Your task to perform on an android device: change the clock display to show seconds Image 0: 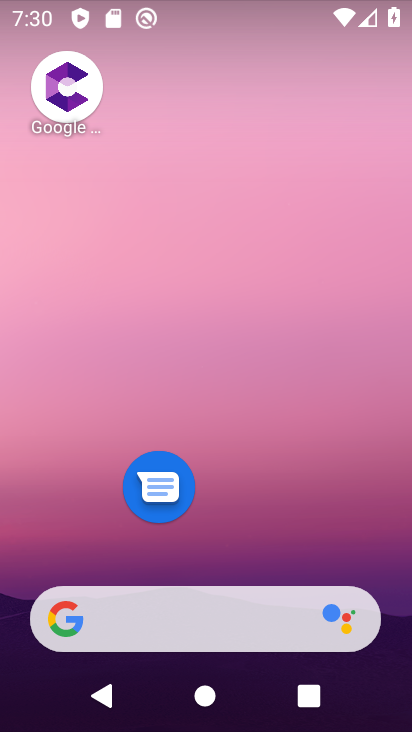
Step 0: drag from (230, 505) to (364, 23)
Your task to perform on an android device: change the clock display to show seconds Image 1: 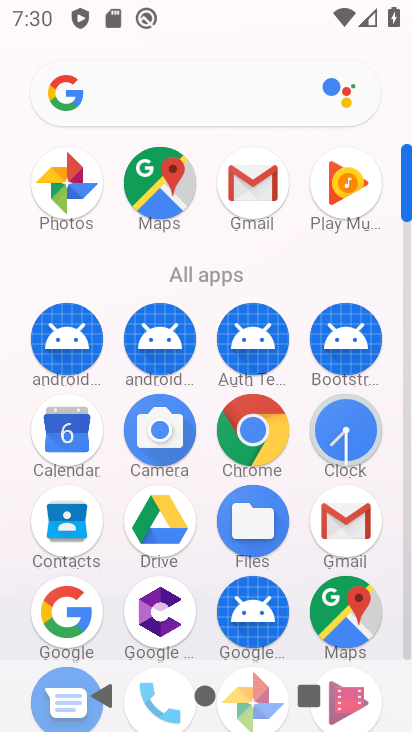
Step 1: click (333, 433)
Your task to perform on an android device: change the clock display to show seconds Image 2: 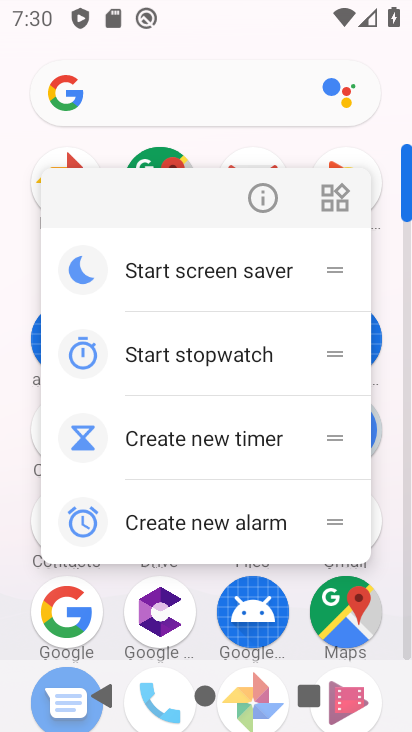
Step 2: click (251, 202)
Your task to perform on an android device: change the clock display to show seconds Image 3: 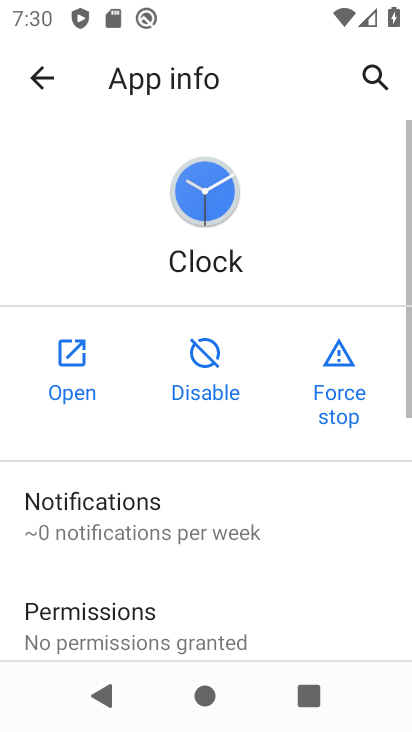
Step 3: click (71, 371)
Your task to perform on an android device: change the clock display to show seconds Image 4: 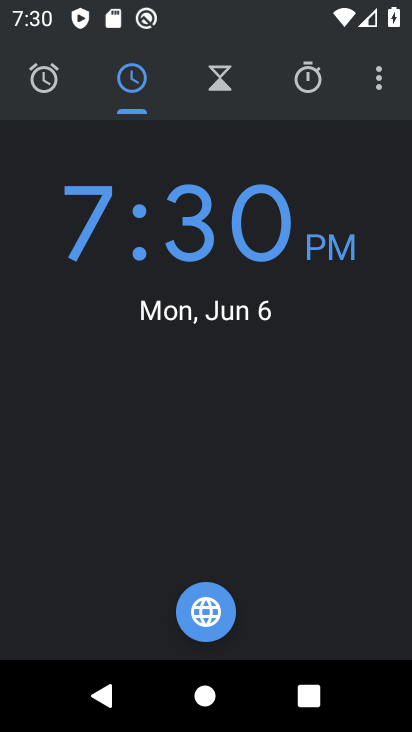
Step 4: drag from (191, 463) to (263, 197)
Your task to perform on an android device: change the clock display to show seconds Image 5: 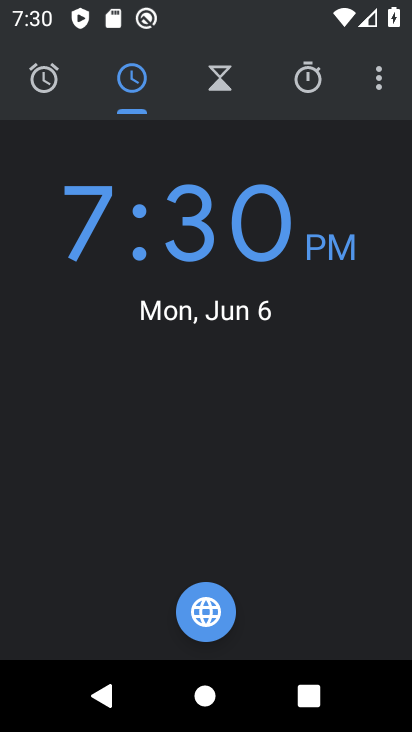
Step 5: click (397, 70)
Your task to perform on an android device: change the clock display to show seconds Image 6: 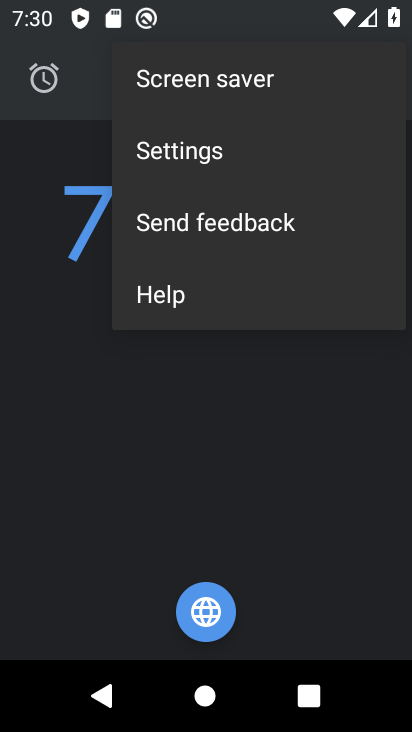
Step 6: click (257, 149)
Your task to perform on an android device: change the clock display to show seconds Image 7: 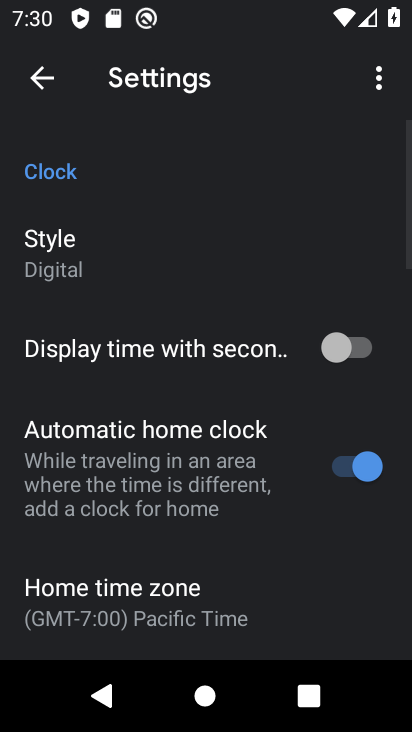
Step 7: drag from (157, 357) to (197, 151)
Your task to perform on an android device: change the clock display to show seconds Image 8: 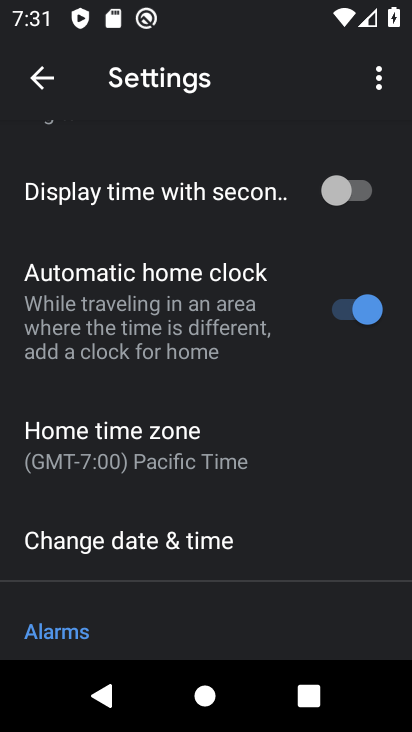
Step 8: click (287, 181)
Your task to perform on an android device: change the clock display to show seconds Image 9: 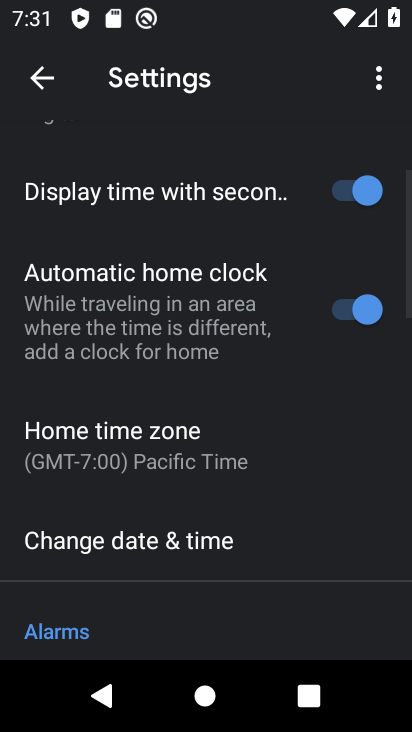
Step 9: task complete